Your task to perform on an android device: Open the Play Movies app and select the watchlist tab. Image 0: 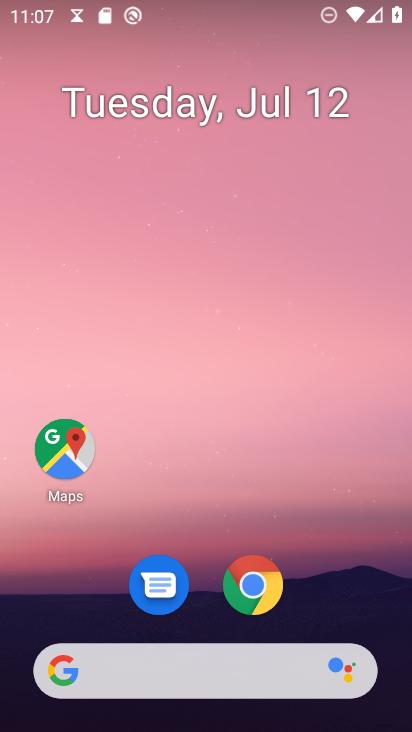
Step 0: drag from (197, 673) to (345, 5)
Your task to perform on an android device: Open the Play Movies app and select the watchlist tab. Image 1: 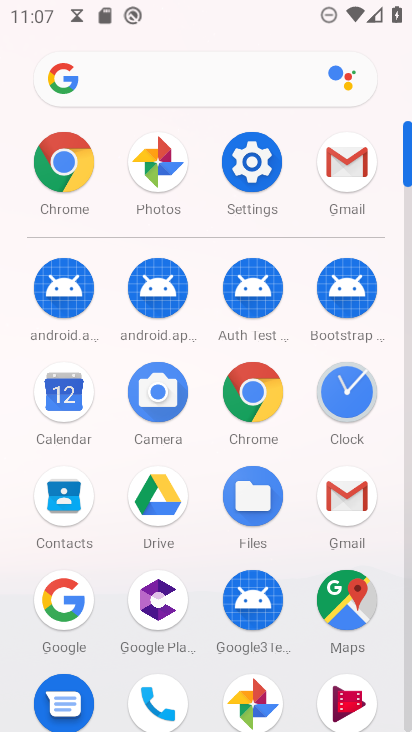
Step 1: click (347, 693)
Your task to perform on an android device: Open the Play Movies app and select the watchlist tab. Image 2: 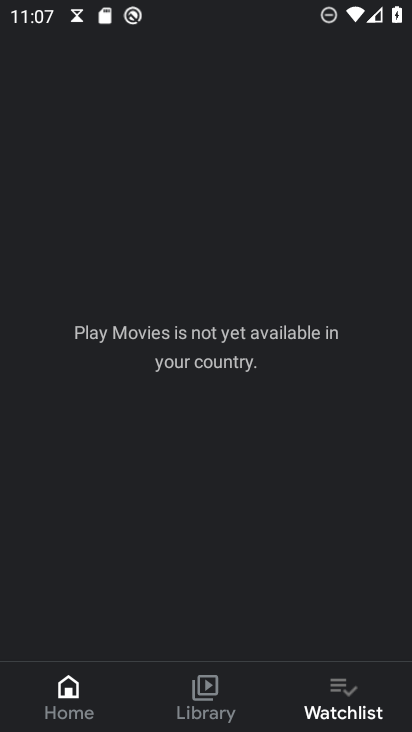
Step 2: task complete